Your task to perform on an android device: turn on translation in the chrome app Image 0: 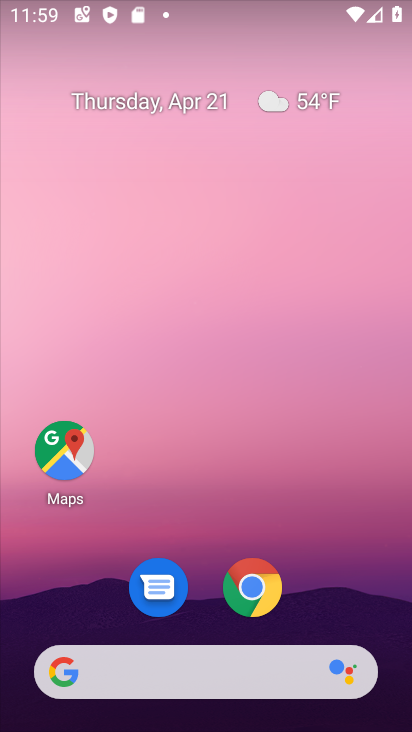
Step 0: click (260, 593)
Your task to perform on an android device: turn on translation in the chrome app Image 1: 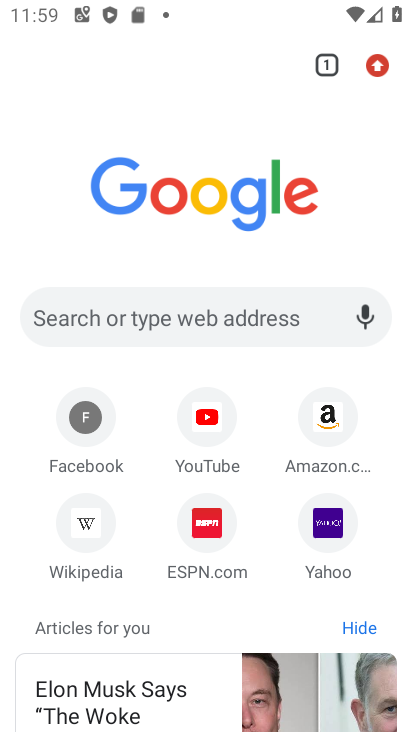
Step 1: click (377, 69)
Your task to perform on an android device: turn on translation in the chrome app Image 2: 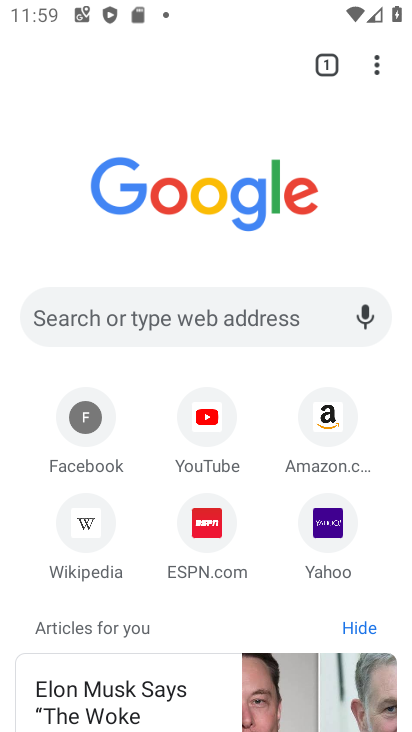
Step 2: click (377, 65)
Your task to perform on an android device: turn on translation in the chrome app Image 3: 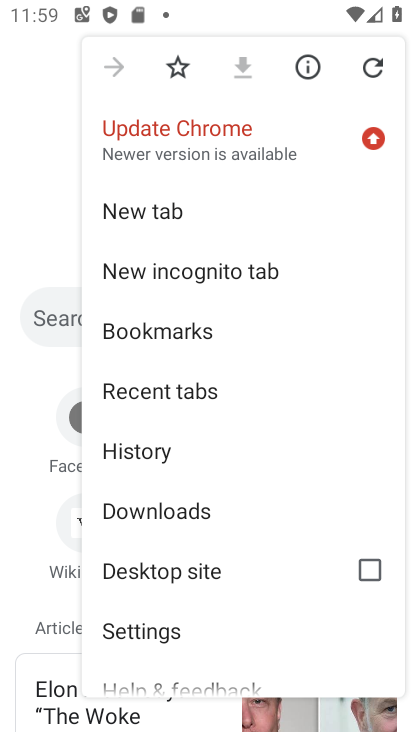
Step 3: drag from (234, 588) to (244, 265)
Your task to perform on an android device: turn on translation in the chrome app Image 4: 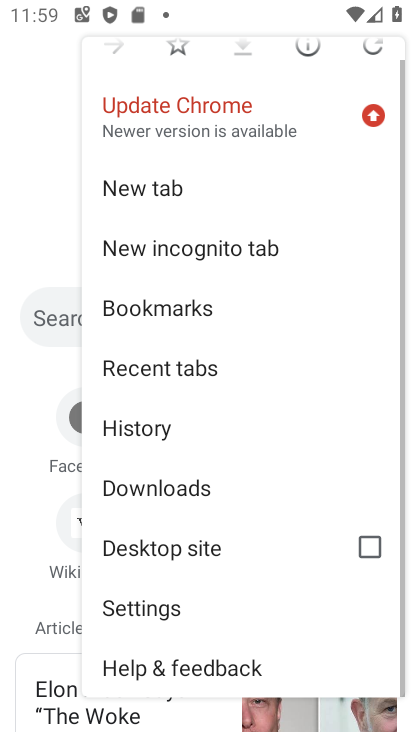
Step 4: click (129, 615)
Your task to perform on an android device: turn on translation in the chrome app Image 5: 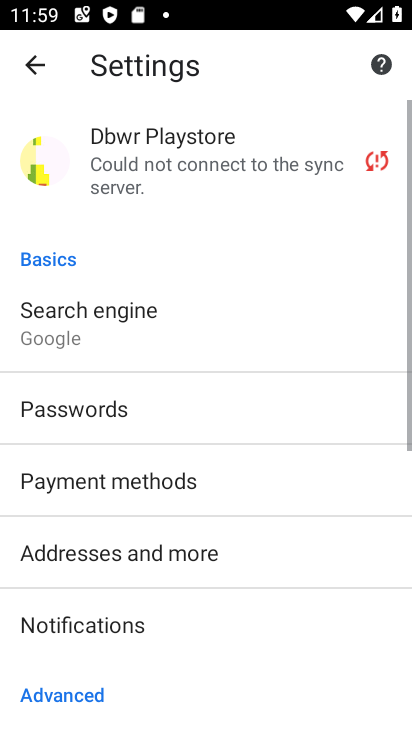
Step 5: drag from (224, 598) to (225, 155)
Your task to perform on an android device: turn on translation in the chrome app Image 6: 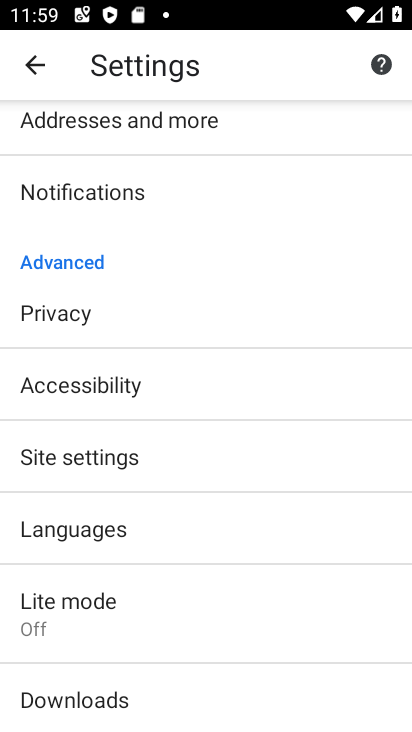
Step 6: click (98, 532)
Your task to perform on an android device: turn on translation in the chrome app Image 7: 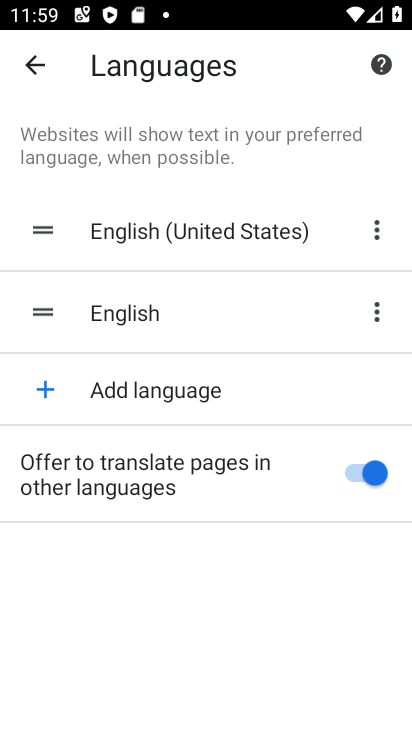
Step 7: task complete